Your task to perform on an android device: Is it going to rain today? Image 0: 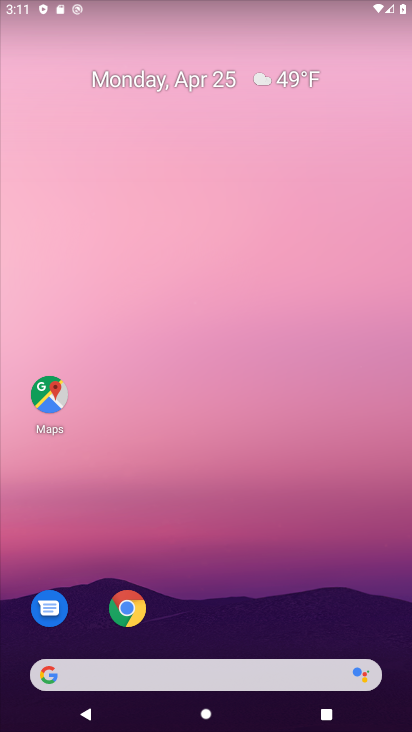
Step 0: click (285, 75)
Your task to perform on an android device: Is it going to rain today? Image 1: 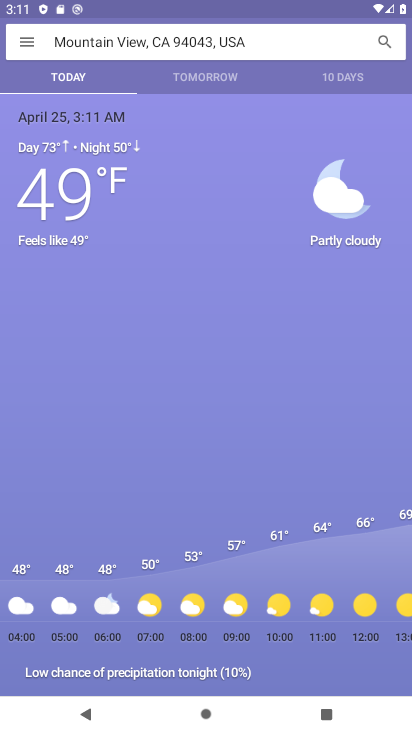
Step 1: task complete